Your task to perform on an android device: check the backup settings in the google photos Image 0: 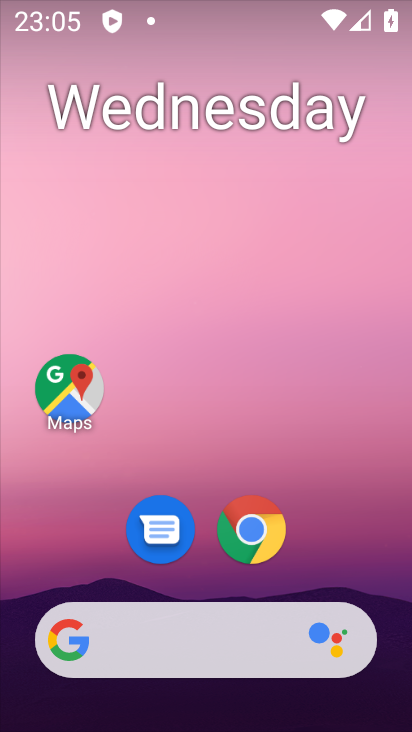
Step 0: drag from (377, 587) to (374, 196)
Your task to perform on an android device: check the backup settings in the google photos Image 1: 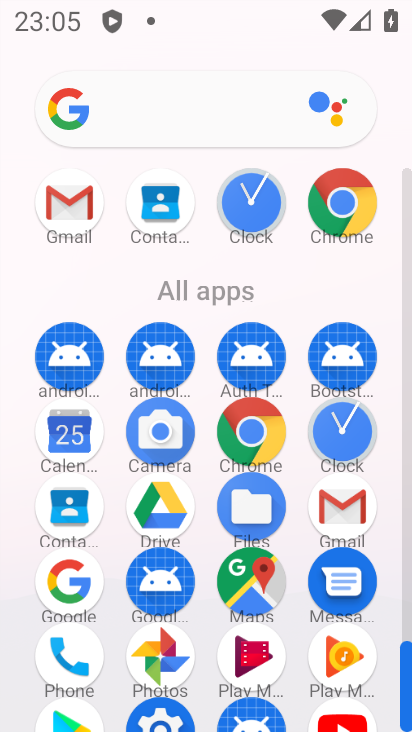
Step 1: click (161, 663)
Your task to perform on an android device: check the backup settings in the google photos Image 2: 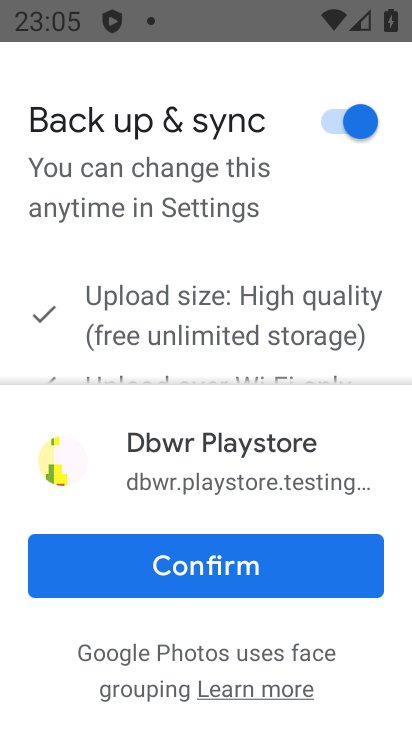
Step 2: click (310, 581)
Your task to perform on an android device: check the backup settings in the google photos Image 3: 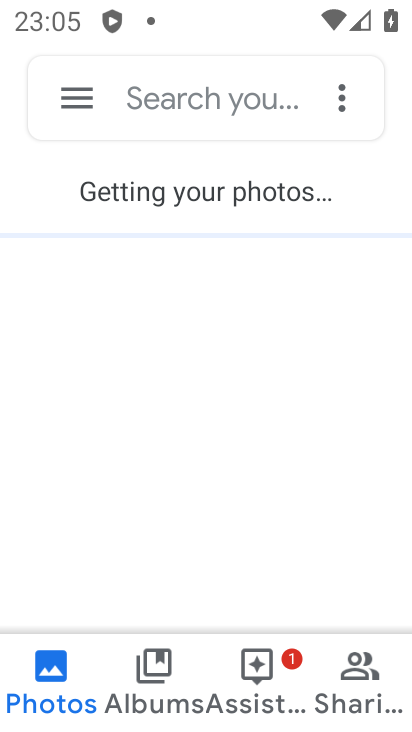
Step 3: click (85, 93)
Your task to perform on an android device: check the backup settings in the google photos Image 4: 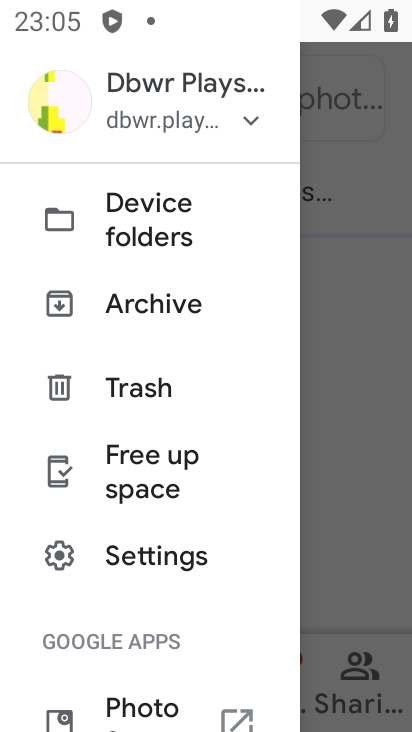
Step 4: click (186, 559)
Your task to perform on an android device: check the backup settings in the google photos Image 5: 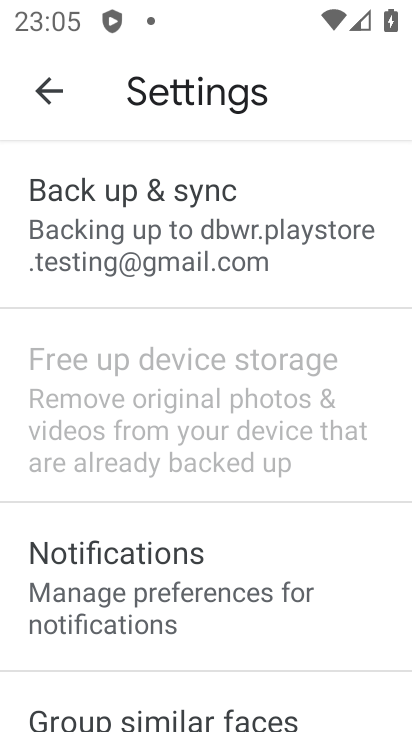
Step 5: click (243, 240)
Your task to perform on an android device: check the backup settings in the google photos Image 6: 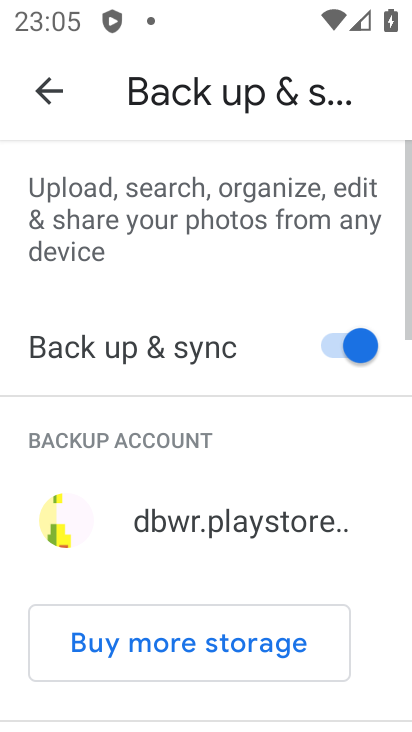
Step 6: task complete